Your task to perform on an android device: Set the phone to "Do not disturb". Image 0: 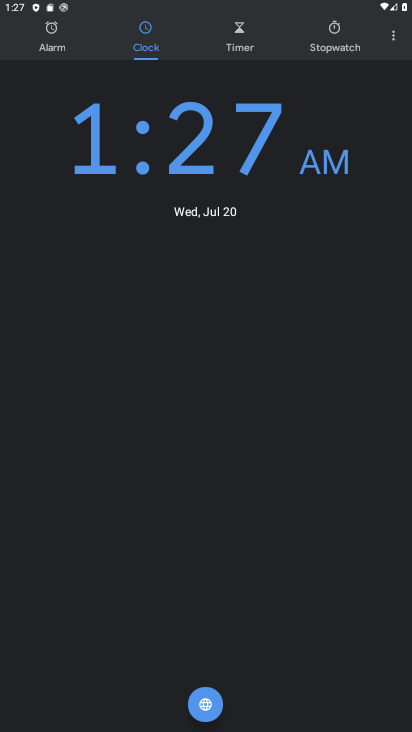
Step 0: press home button
Your task to perform on an android device: Set the phone to "Do not disturb". Image 1: 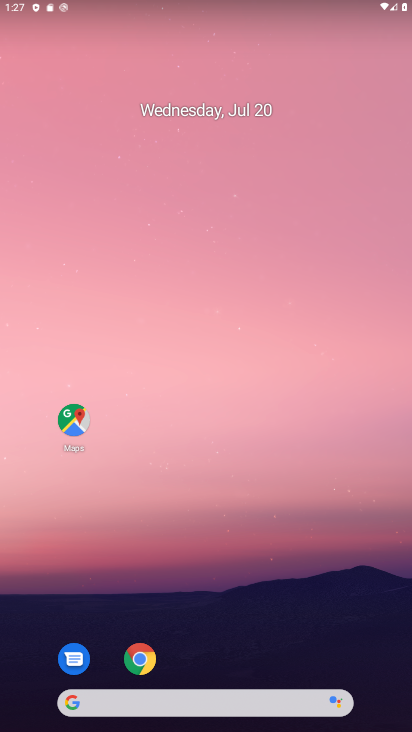
Step 1: drag from (181, 701) to (229, 92)
Your task to perform on an android device: Set the phone to "Do not disturb". Image 2: 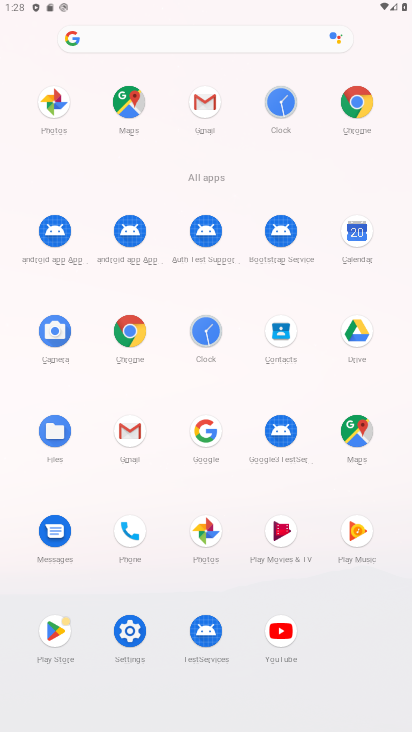
Step 2: click (126, 629)
Your task to perform on an android device: Set the phone to "Do not disturb". Image 3: 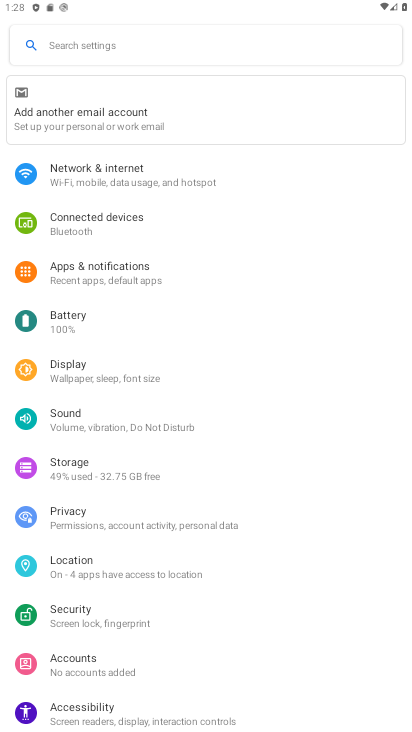
Step 3: click (100, 427)
Your task to perform on an android device: Set the phone to "Do not disturb". Image 4: 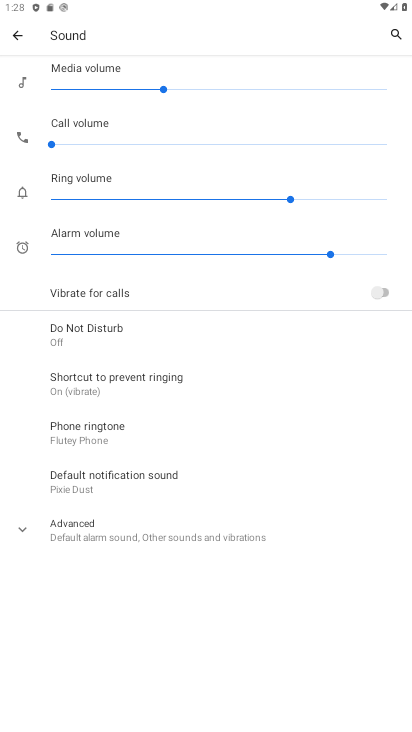
Step 4: click (70, 337)
Your task to perform on an android device: Set the phone to "Do not disturb". Image 5: 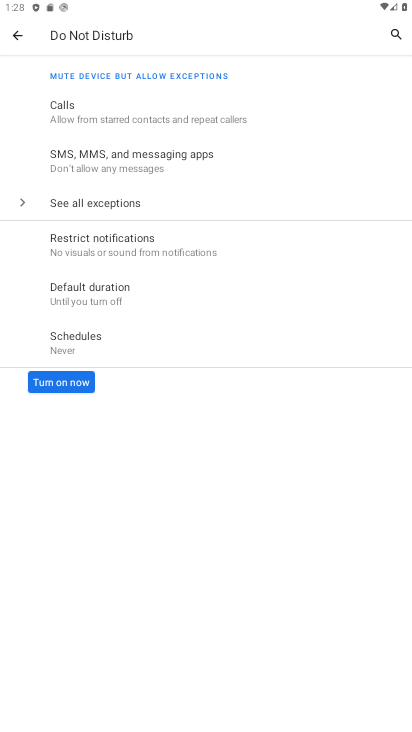
Step 5: click (47, 384)
Your task to perform on an android device: Set the phone to "Do not disturb". Image 6: 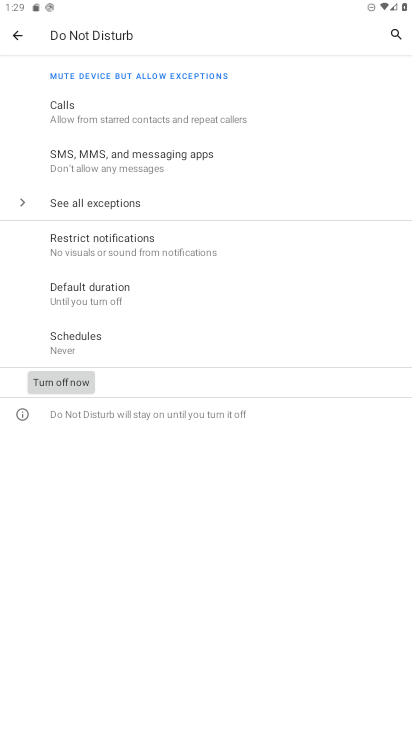
Step 6: task complete